Your task to perform on an android device: Search for sushi restaurants on Maps Image 0: 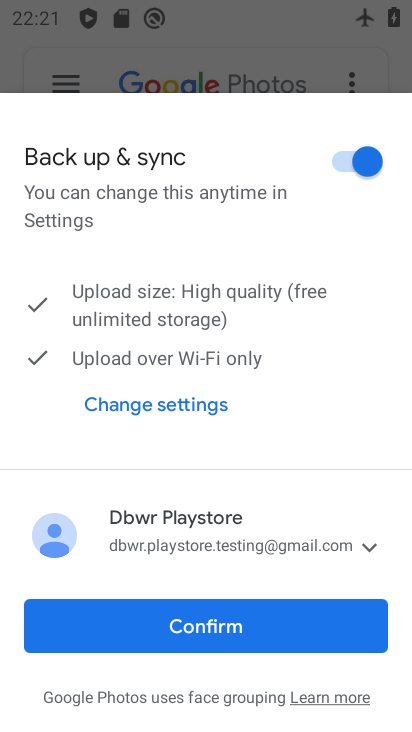
Step 0: press home button
Your task to perform on an android device: Search for sushi restaurants on Maps Image 1: 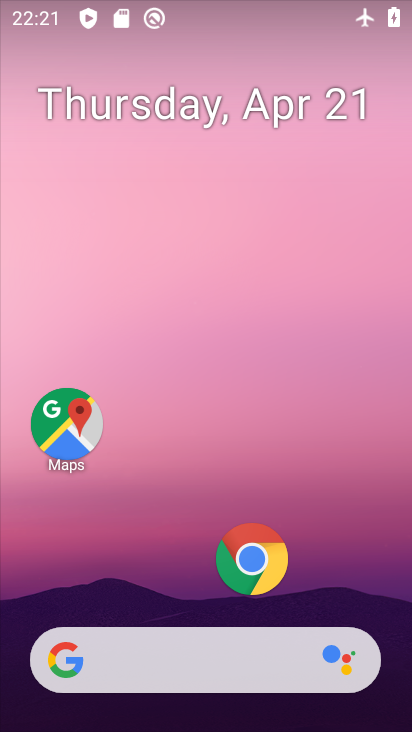
Step 1: drag from (69, 562) to (139, 86)
Your task to perform on an android device: Search for sushi restaurants on Maps Image 2: 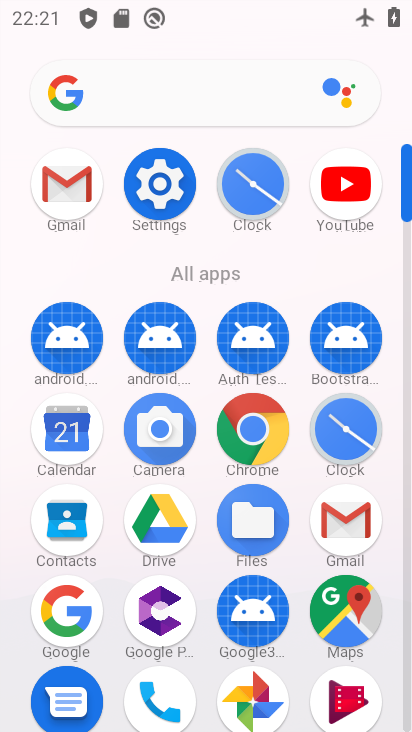
Step 2: drag from (204, 688) to (208, 457)
Your task to perform on an android device: Search for sushi restaurants on Maps Image 3: 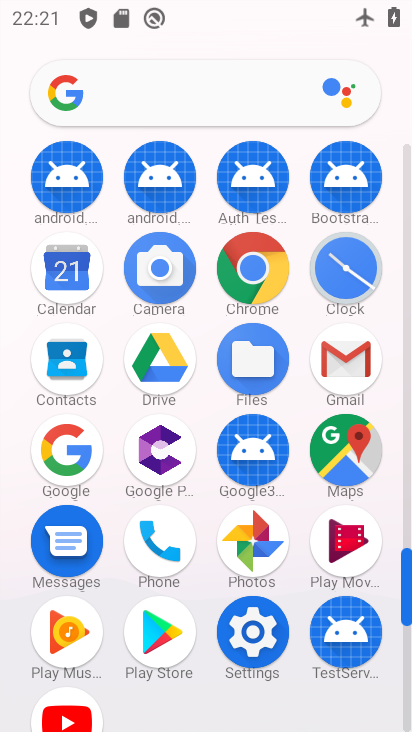
Step 3: click (328, 448)
Your task to perform on an android device: Search for sushi restaurants on Maps Image 4: 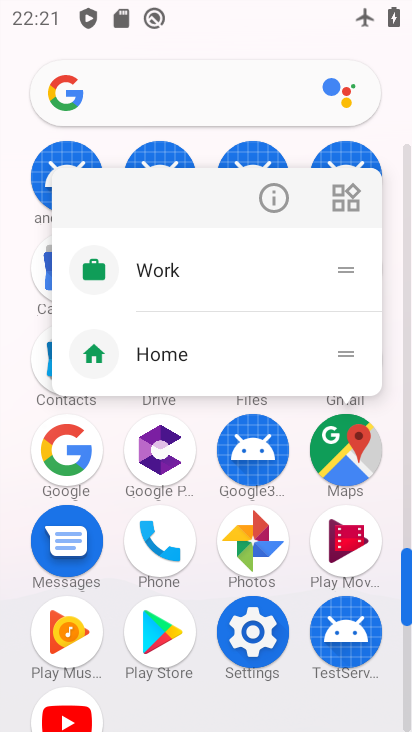
Step 4: click (270, 213)
Your task to perform on an android device: Search for sushi restaurants on Maps Image 5: 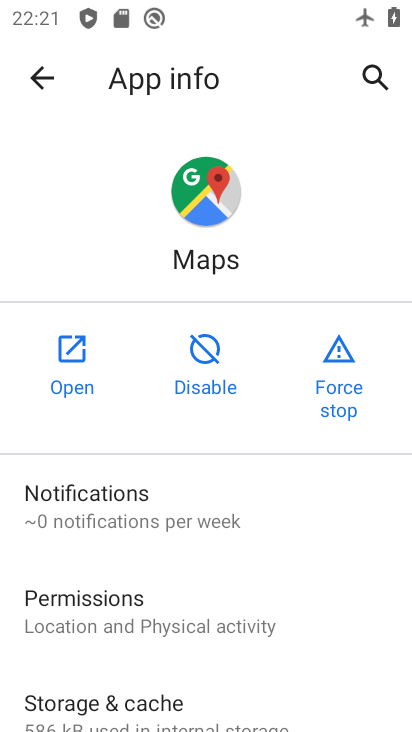
Step 5: click (81, 369)
Your task to perform on an android device: Search for sushi restaurants on Maps Image 6: 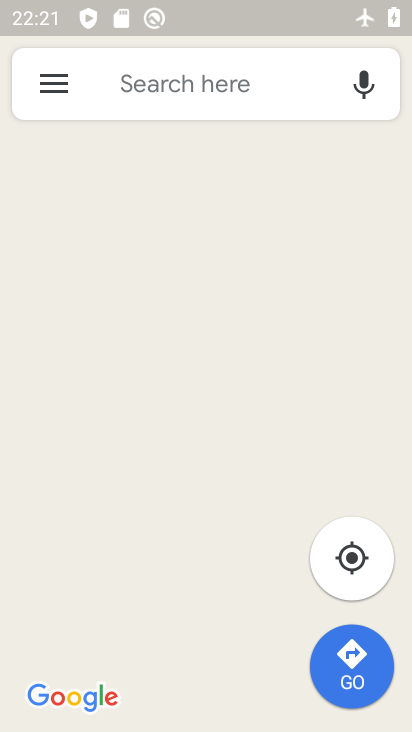
Step 6: click (154, 94)
Your task to perform on an android device: Search for sushi restaurants on Maps Image 7: 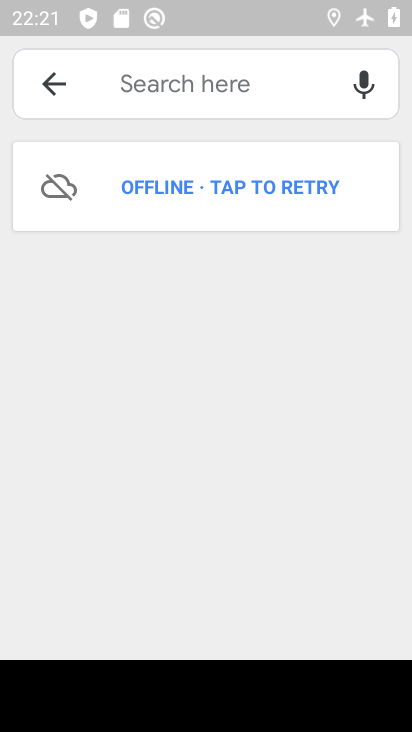
Step 7: type "sushi restaurants"
Your task to perform on an android device: Search for sushi restaurants on Maps Image 8: 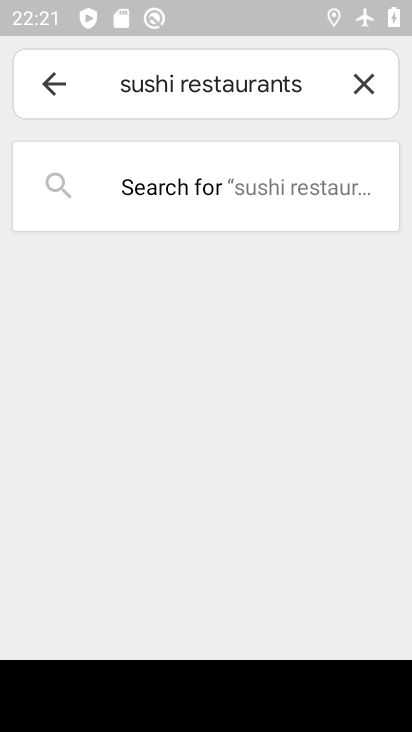
Step 8: task complete